Your task to perform on an android device: turn on javascript in the chrome app Image 0: 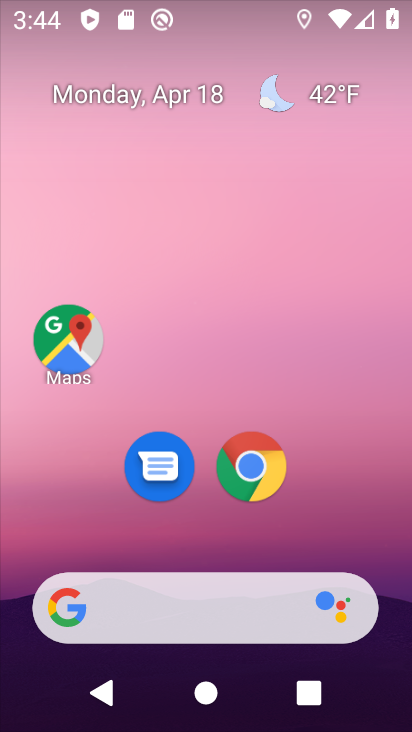
Step 0: click (247, 468)
Your task to perform on an android device: turn on javascript in the chrome app Image 1: 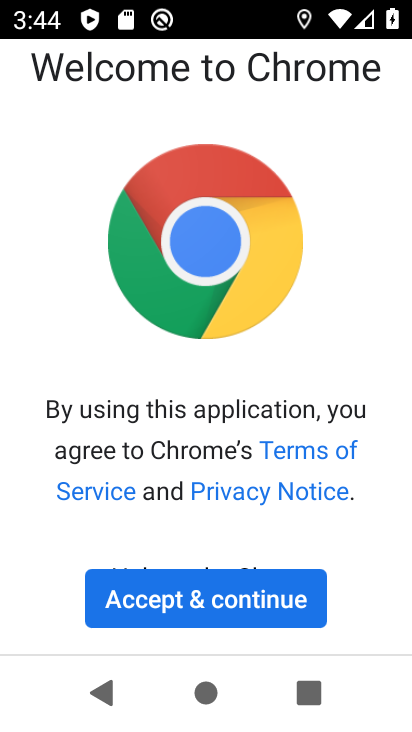
Step 1: click (185, 604)
Your task to perform on an android device: turn on javascript in the chrome app Image 2: 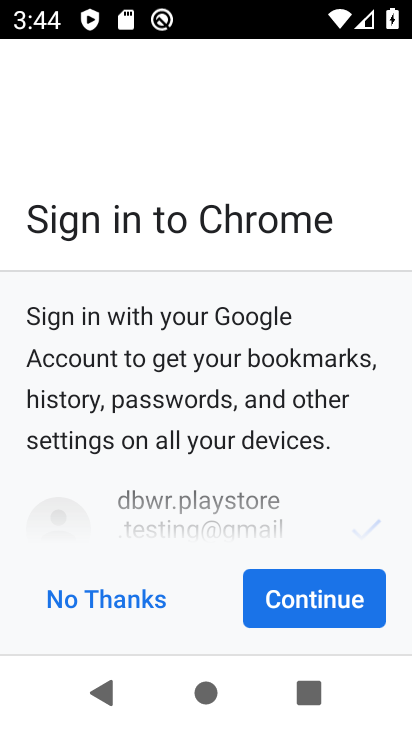
Step 2: click (309, 596)
Your task to perform on an android device: turn on javascript in the chrome app Image 3: 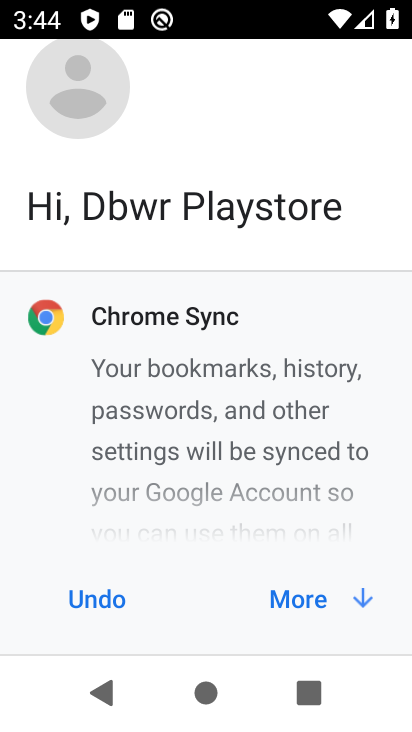
Step 3: click (309, 596)
Your task to perform on an android device: turn on javascript in the chrome app Image 4: 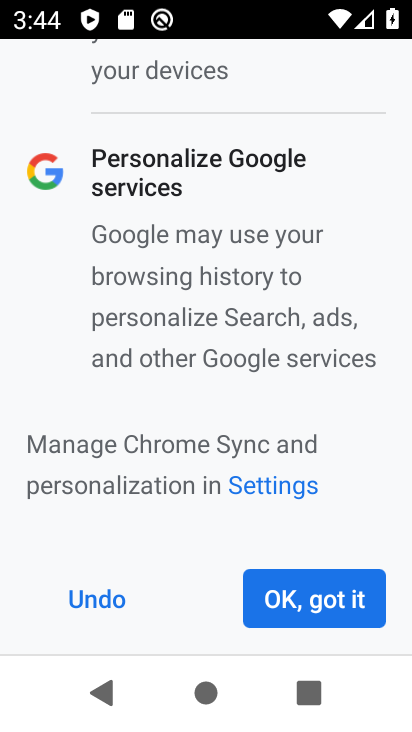
Step 4: click (323, 604)
Your task to perform on an android device: turn on javascript in the chrome app Image 5: 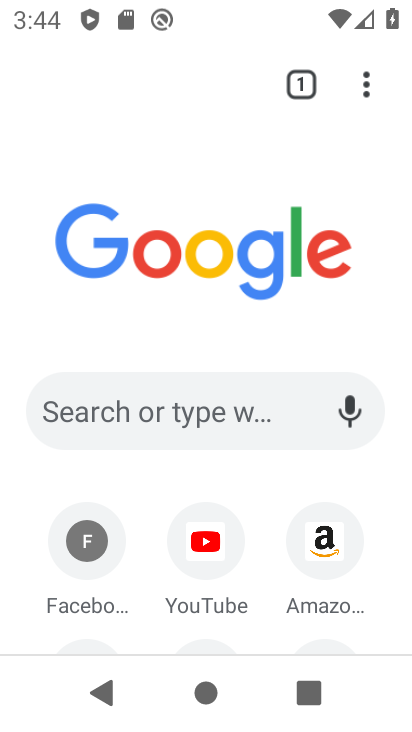
Step 5: click (362, 86)
Your task to perform on an android device: turn on javascript in the chrome app Image 6: 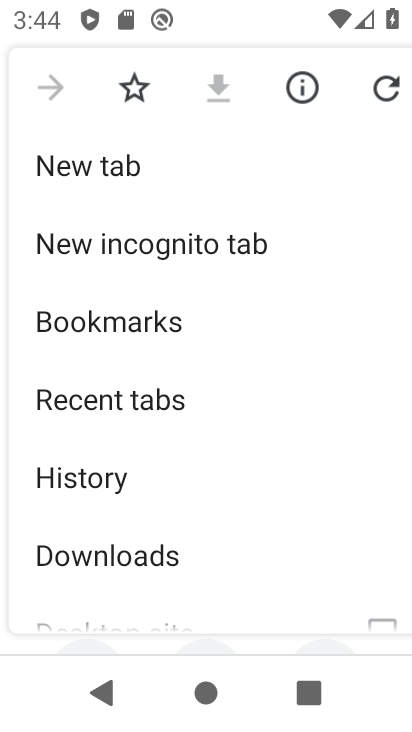
Step 6: drag from (206, 536) to (288, 208)
Your task to perform on an android device: turn on javascript in the chrome app Image 7: 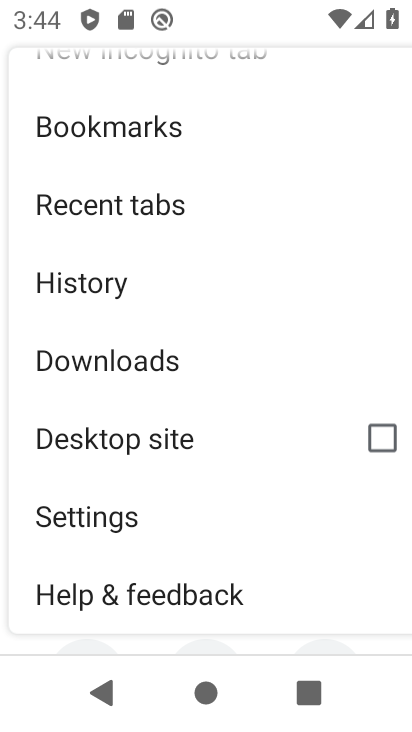
Step 7: click (73, 523)
Your task to perform on an android device: turn on javascript in the chrome app Image 8: 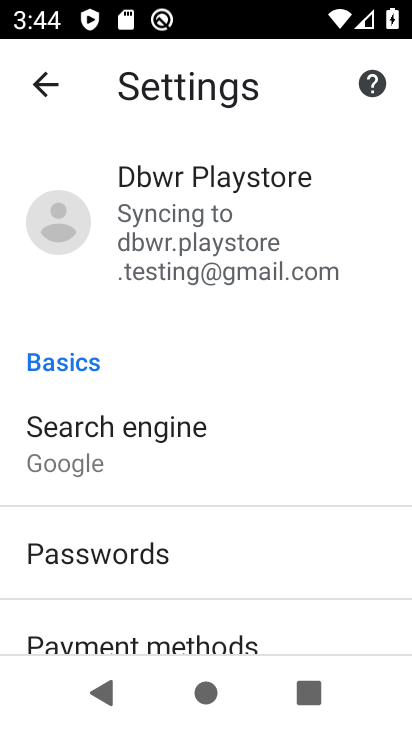
Step 8: drag from (280, 629) to (250, 265)
Your task to perform on an android device: turn on javascript in the chrome app Image 9: 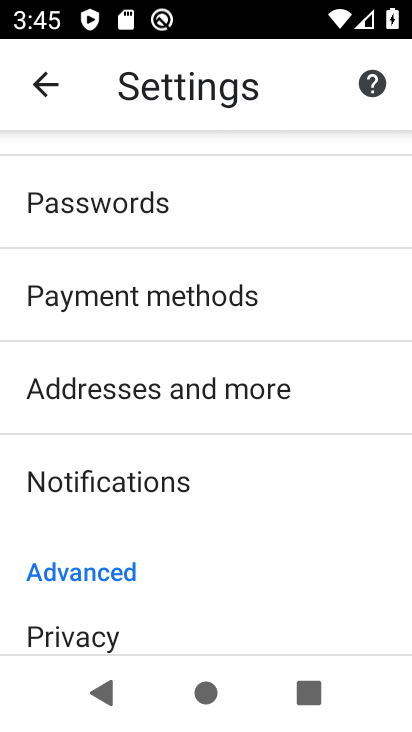
Step 9: drag from (235, 573) to (313, 255)
Your task to perform on an android device: turn on javascript in the chrome app Image 10: 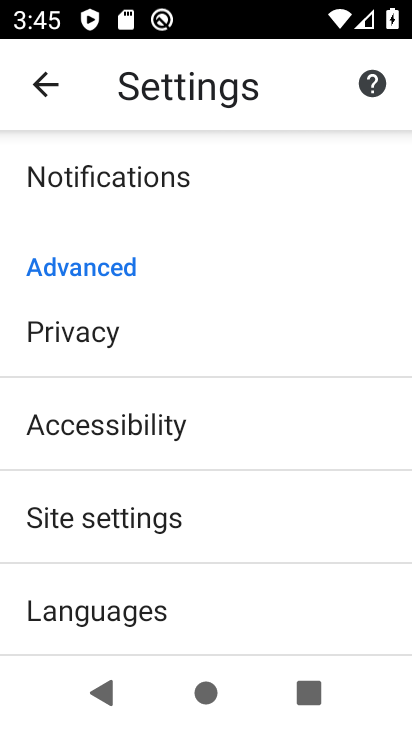
Step 10: click (119, 539)
Your task to perform on an android device: turn on javascript in the chrome app Image 11: 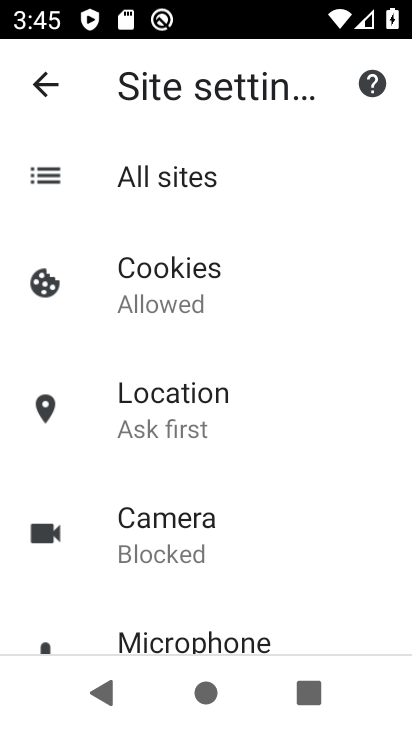
Step 11: drag from (311, 588) to (298, 330)
Your task to perform on an android device: turn on javascript in the chrome app Image 12: 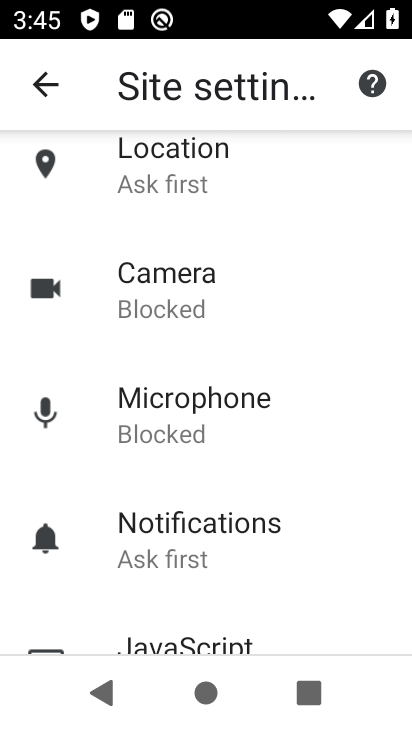
Step 12: drag from (290, 561) to (292, 246)
Your task to perform on an android device: turn on javascript in the chrome app Image 13: 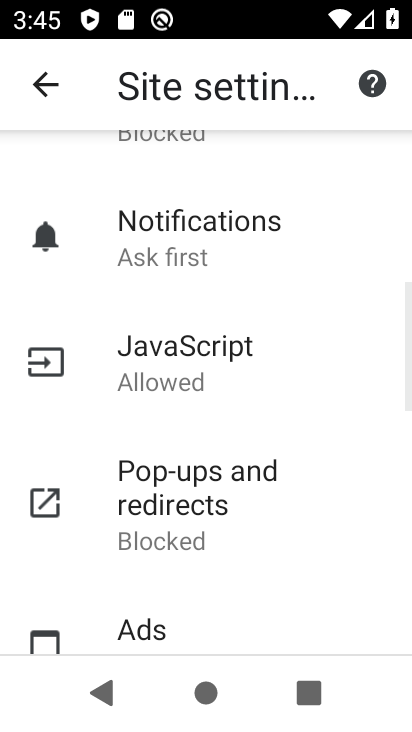
Step 13: click (158, 370)
Your task to perform on an android device: turn on javascript in the chrome app Image 14: 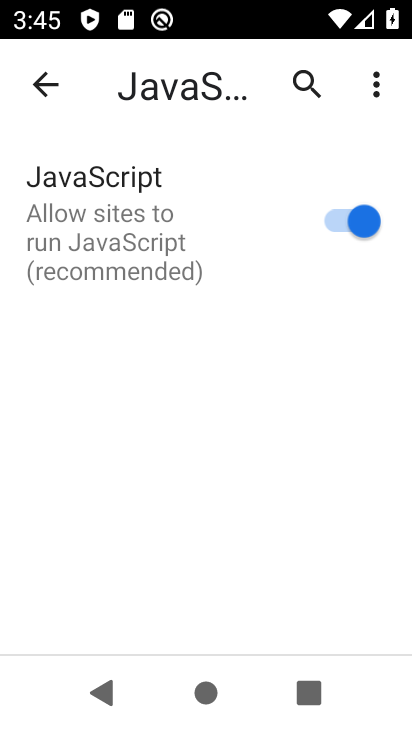
Step 14: task complete